Your task to perform on an android device: check the backup settings in the google photos Image 0: 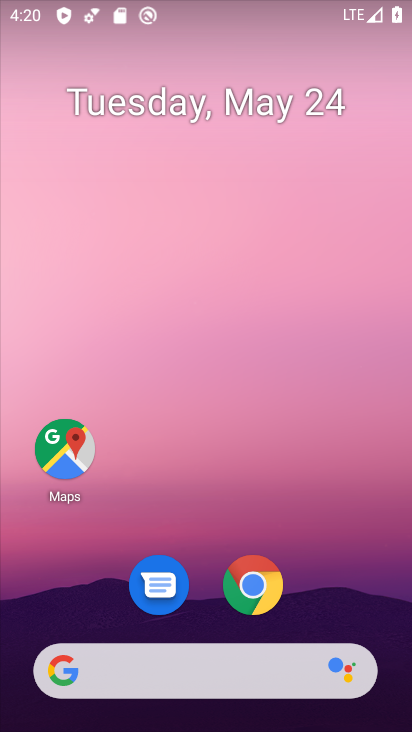
Step 0: drag from (242, 474) to (286, 14)
Your task to perform on an android device: check the backup settings in the google photos Image 1: 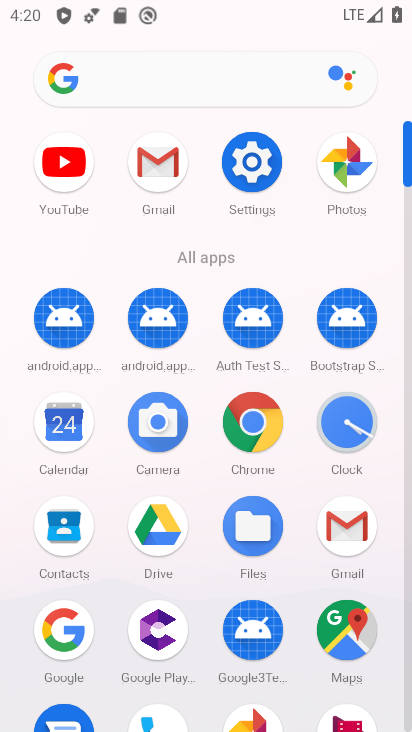
Step 1: click (338, 158)
Your task to perform on an android device: check the backup settings in the google photos Image 2: 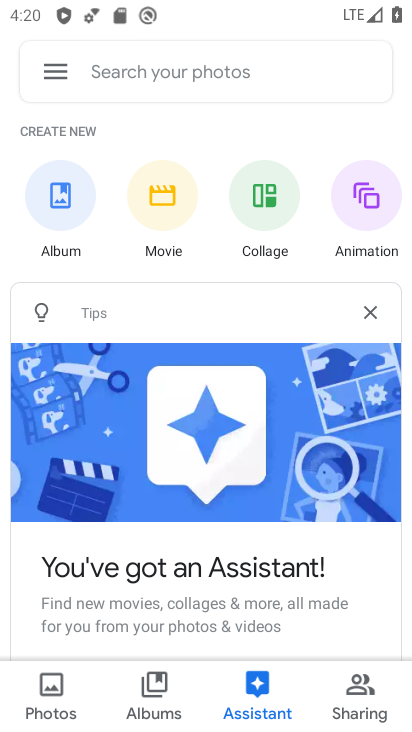
Step 2: click (53, 67)
Your task to perform on an android device: check the backup settings in the google photos Image 3: 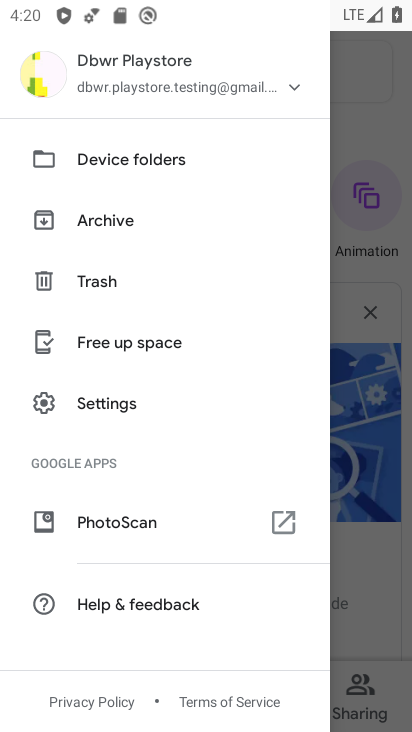
Step 3: click (109, 392)
Your task to perform on an android device: check the backup settings in the google photos Image 4: 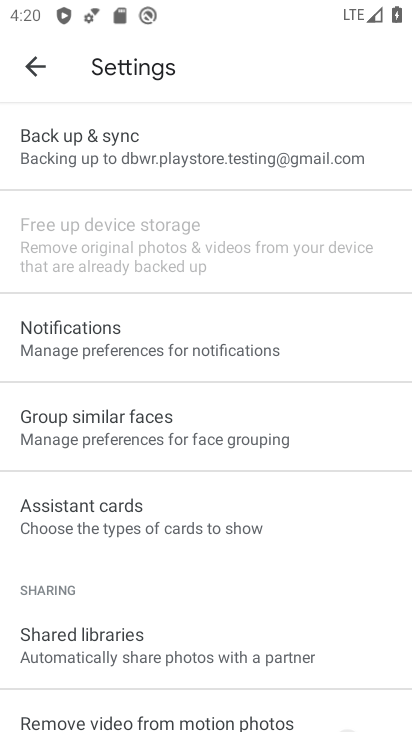
Step 4: click (125, 136)
Your task to perform on an android device: check the backup settings in the google photos Image 5: 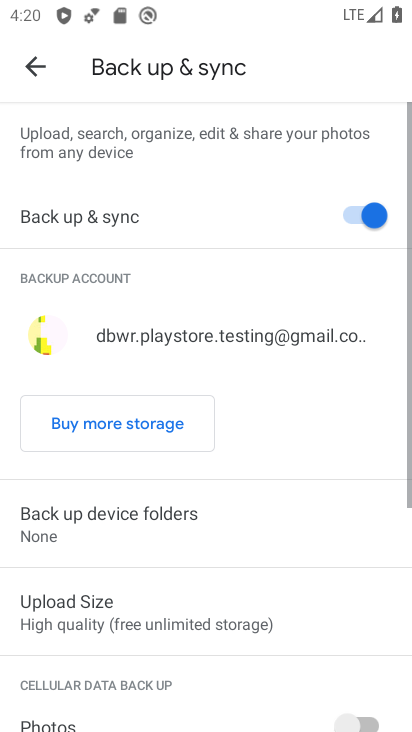
Step 5: task complete